Your task to perform on an android device: Open Yahoo.com Image 0: 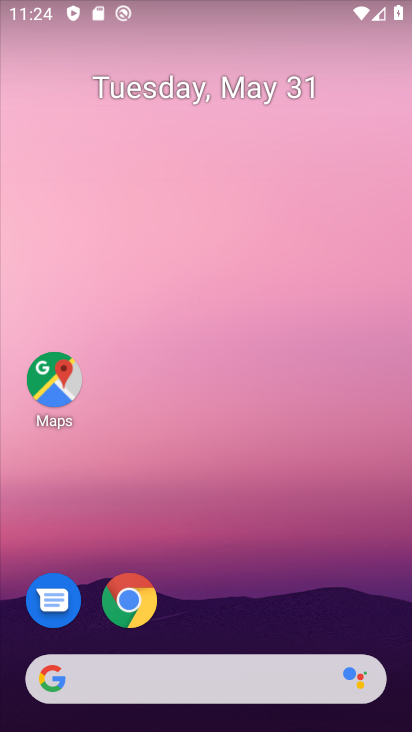
Step 0: drag from (354, 613) to (352, 150)
Your task to perform on an android device: Open Yahoo.com Image 1: 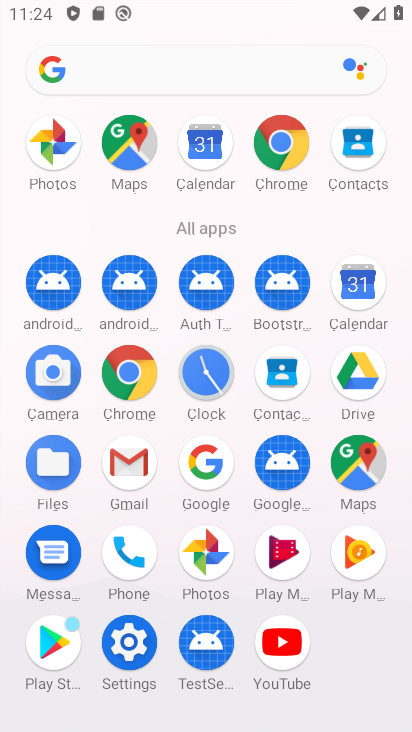
Step 1: click (142, 391)
Your task to perform on an android device: Open Yahoo.com Image 2: 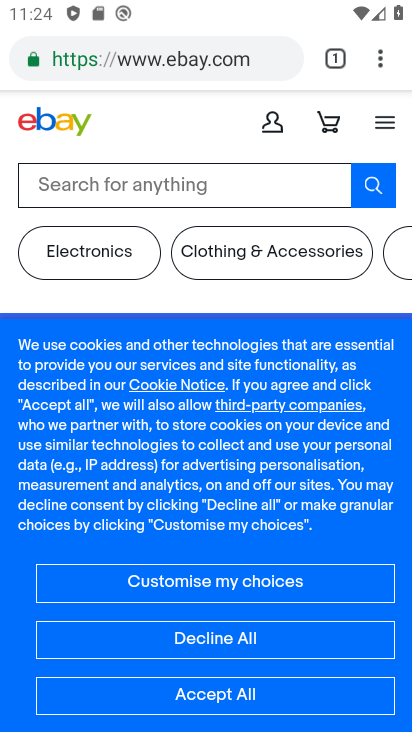
Step 2: click (227, 65)
Your task to perform on an android device: Open Yahoo.com Image 3: 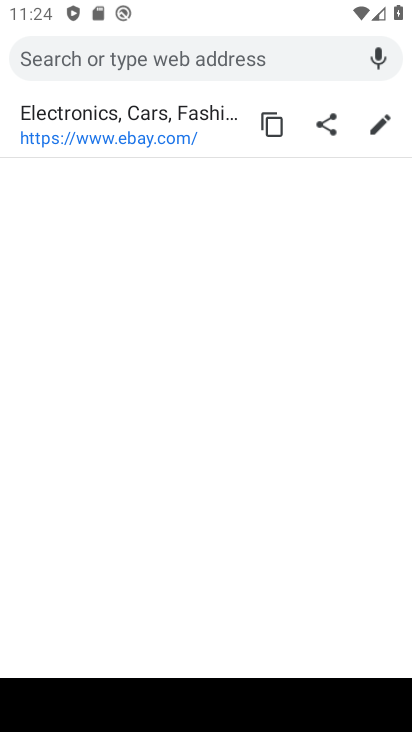
Step 3: type "yahoo.com"
Your task to perform on an android device: Open Yahoo.com Image 4: 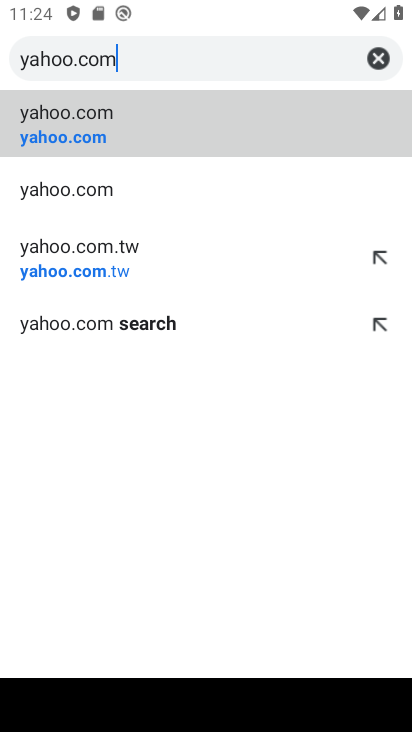
Step 4: click (105, 105)
Your task to perform on an android device: Open Yahoo.com Image 5: 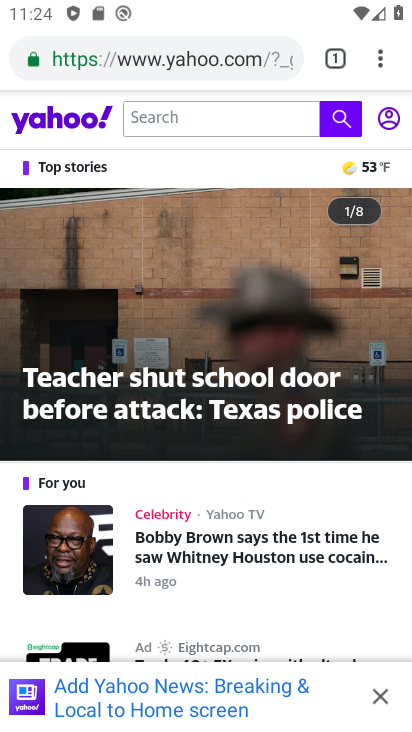
Step 5: task complete